Your task to perform on an android device: Open Wikipedia Image 0: 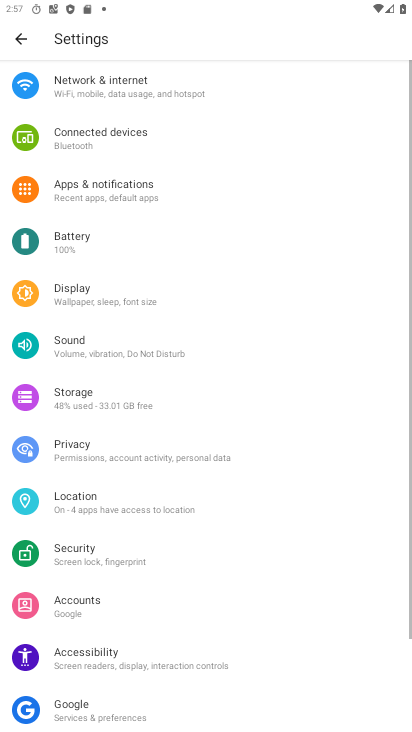
Step 0: press home button
Your task to perform on an android device: Open Wikipedia Image 1: 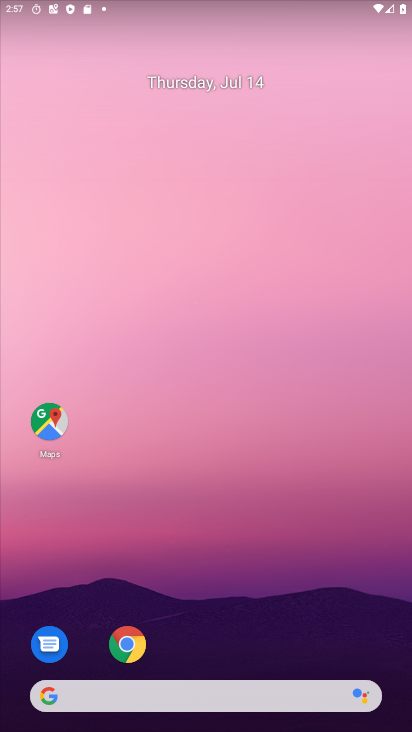
Step 1: drag from (53, 617) to (351, 27)
Your task to perform on an android device: Open Wikipedia Image 2: 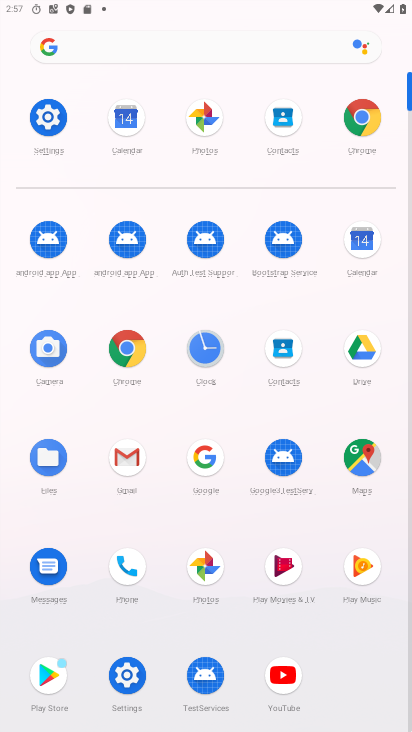
Step 2: click (131, 50)
Your task to perform on an android device: Open Wikipedia Image 3: 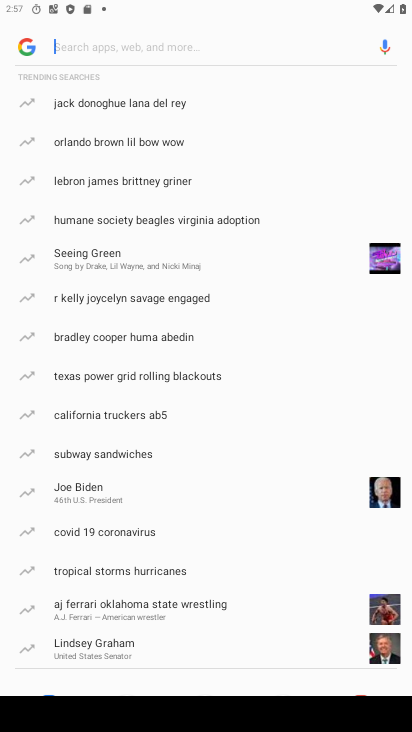
Step 3: type "Wikipedia"
Your task to perform on an android device: Open Wikipedia Image 4: 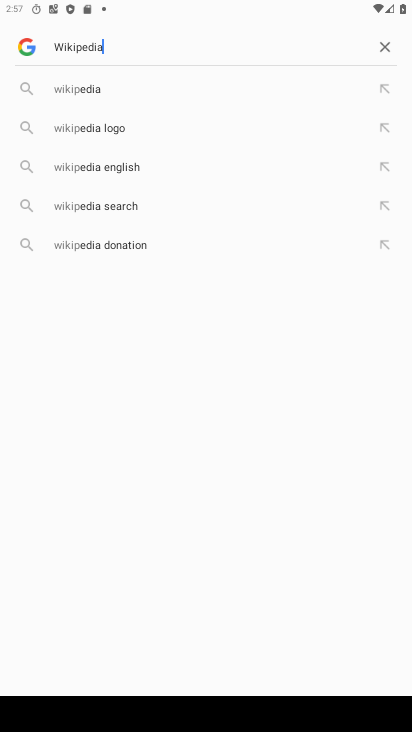
Step 4: type ""
Your task to perform on an android device: Open Wikipedia Image 5: 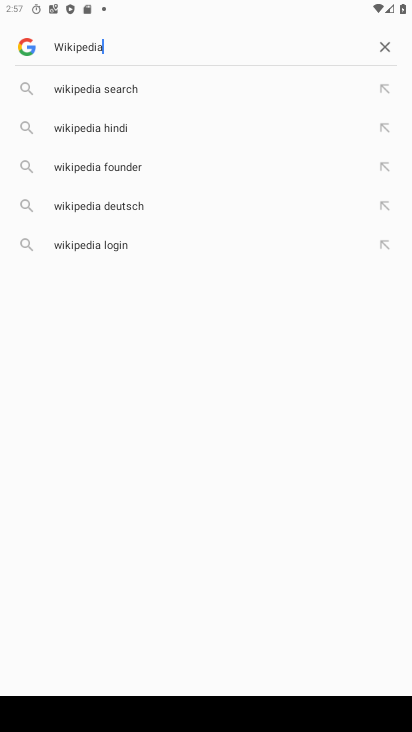
Step 5: click (64, 84)
Your task to perform on an android device: Open Wikipedia Image 6: 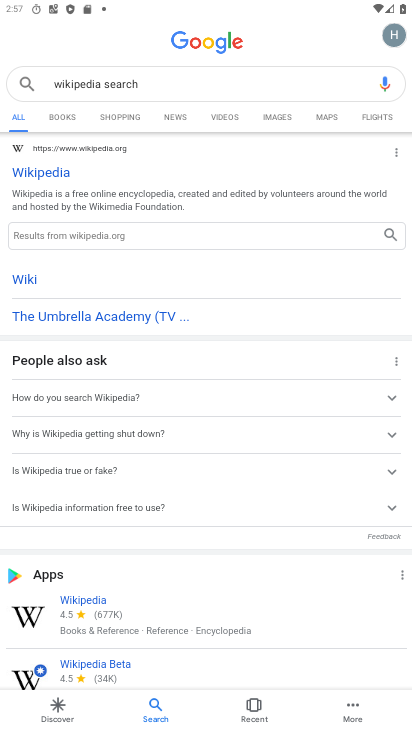
Step 6: task complete